Your task to perform on an android device: snooze an email in the gmail app Image 0: 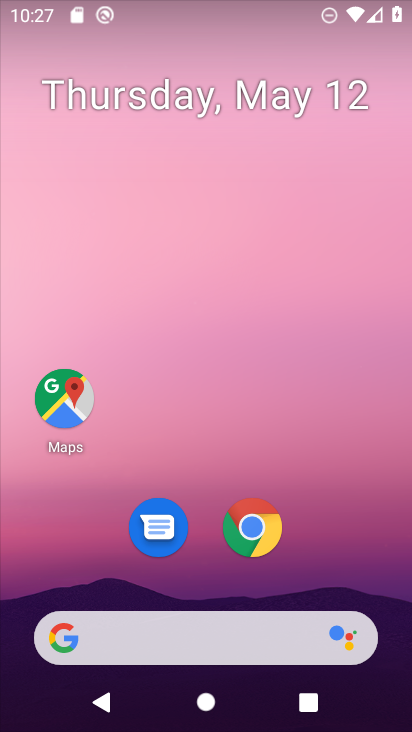
Step 0: drag from (326, 552) to (325, 31)
Your task to perform on an android device: snooze an email in the gmail app Image 1: 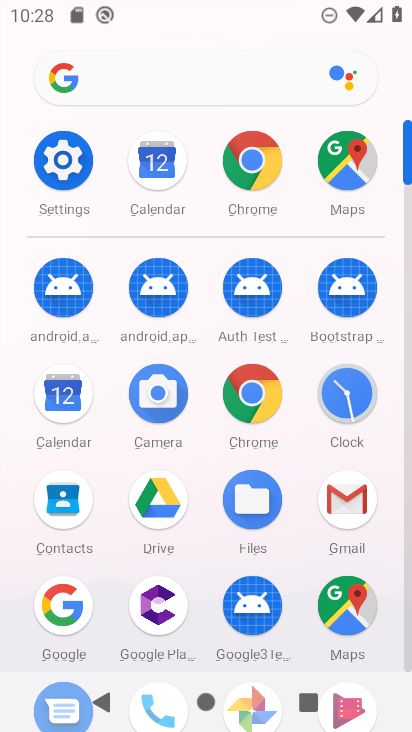
Step 1: drag from (341, 513) to (212, 414)
Your task to perform on an android device: snooze an email in the gmail app Image 2: 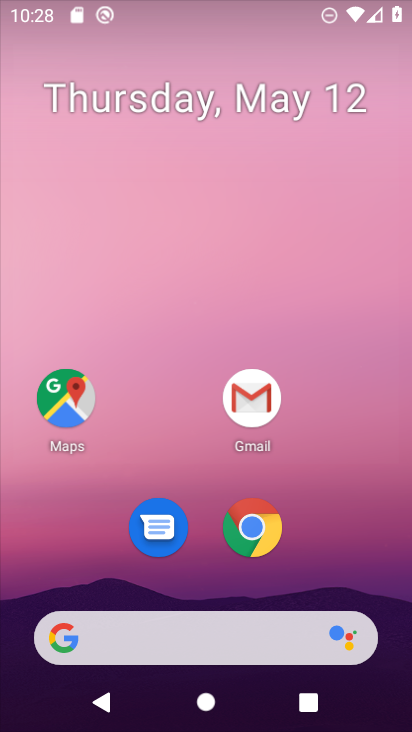
Step 2: click (212, 414)
Your task to perform on an android device: snooze an email in the gmail app Image 3: 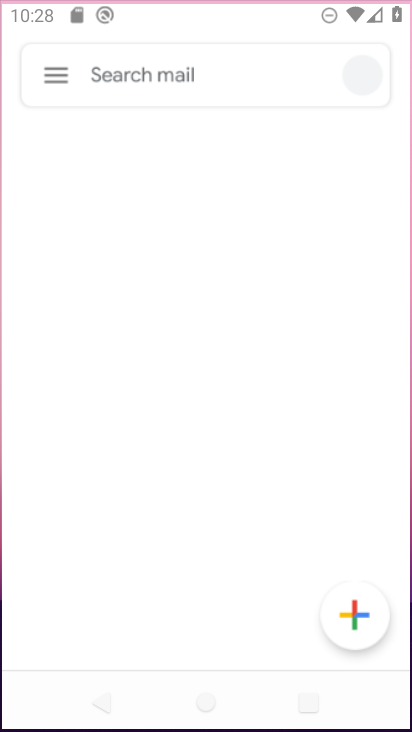
Step 3: click (254, 407)
Your task to perform on an android device: snooze an email in the gmail app Image 4: 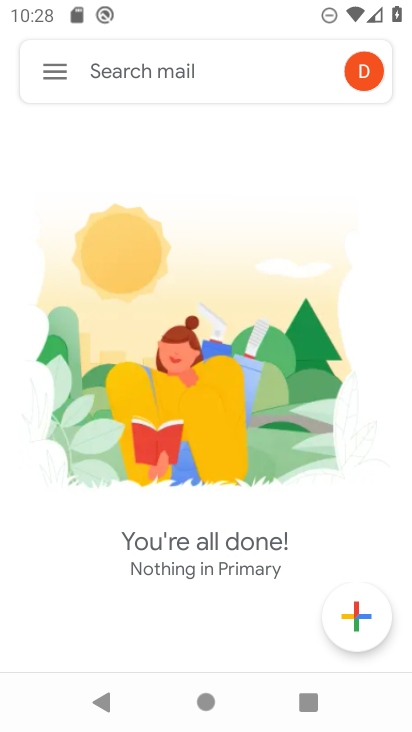
Step 4: click (44, 64)
Your task to perform on an android device: snooze an email in the gmail app Image 5: 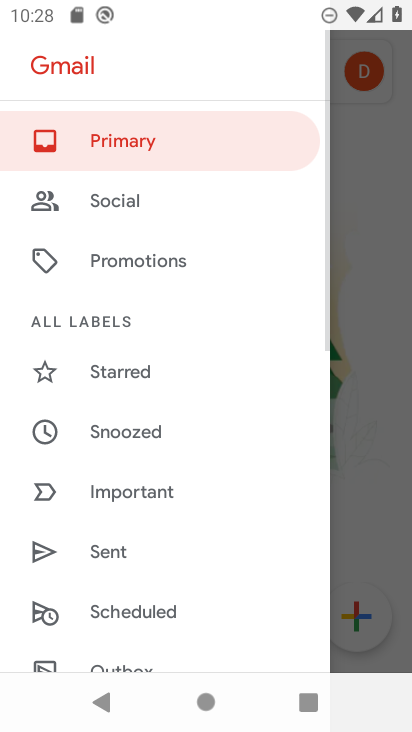
Step 5: drag from (103, 612) to (110, 381)
Your task to perform on an android device: snooze an email in the gmail app Image 6: 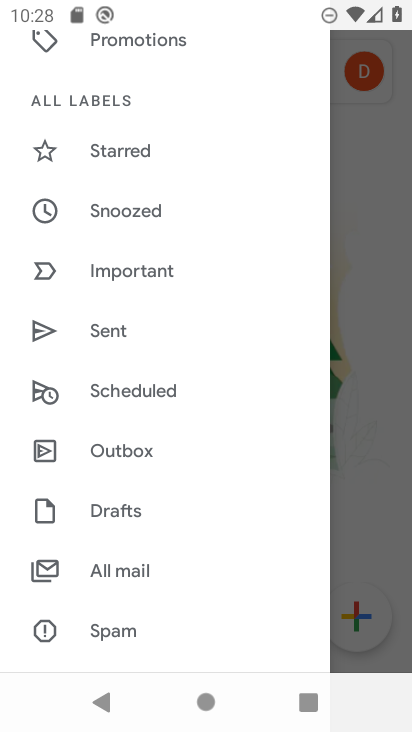
Step 6: click (131, 577)
Your task to perform on an android device: snooze an email in the gmail app Image 7: 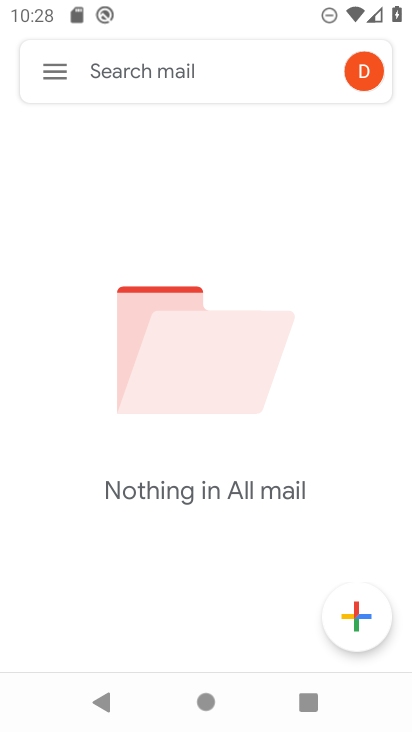
Step 7: click (55, 74)
Your task to perform on an android device: snooze an email in the gmail app Image 8: 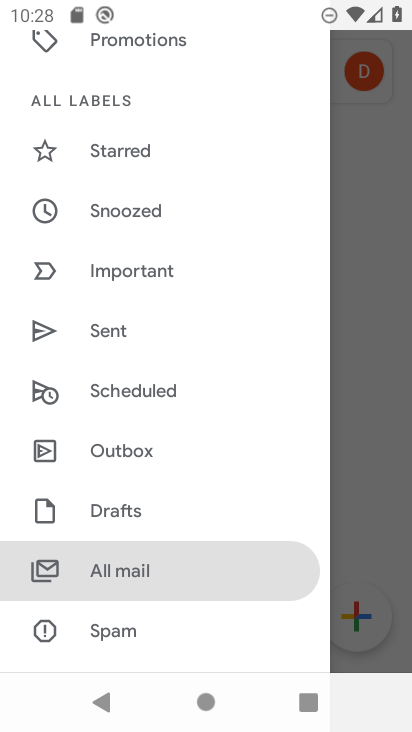
Step 8: click (115, 222)
Your task to perform on an android device: snooze an email in the gmail app Image 9: 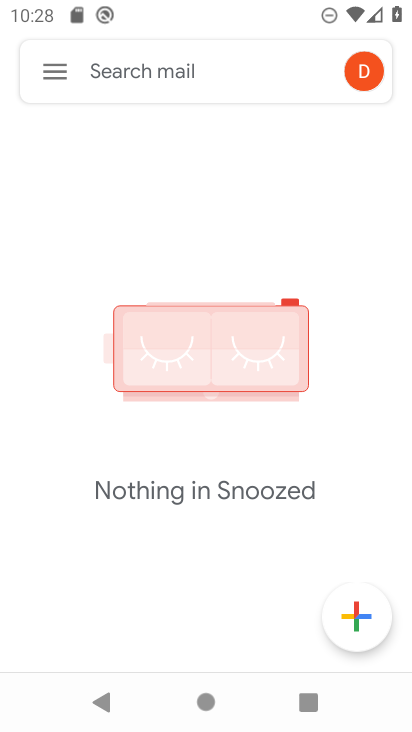
Step 9: task complete